Your task to perform on an android device: turn on airplane mode Image 0: 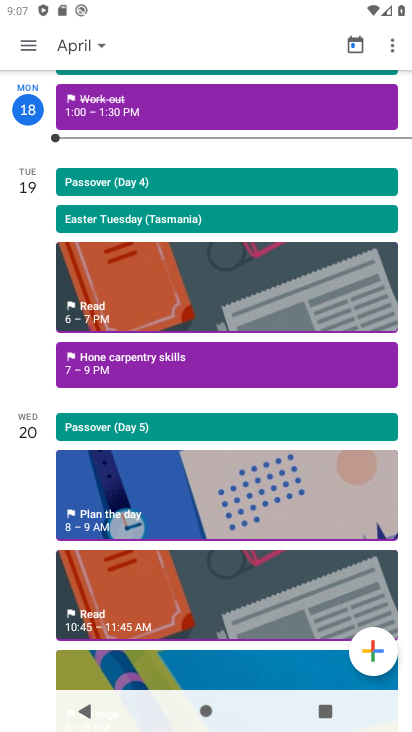
Step 0: press home button
Your task to perform on an android device: turn on airplane mode Image 1: 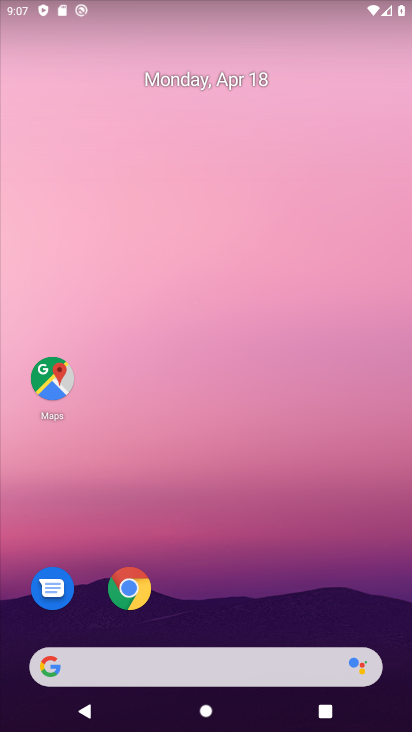
Step 1: drag from (263, 11) to (260, 595)
Your task to perform on an android device: turn on airplane mode Image 2: 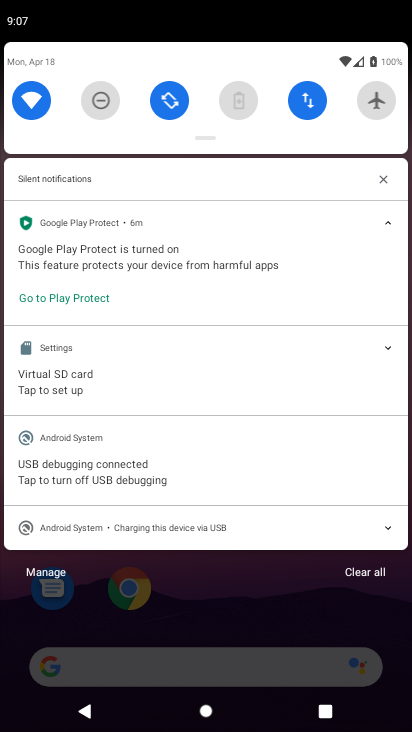
Step 2: drag from (275, 115) to (235, 618)
Your task to perform on an android device: turn on airplane mode Image 3: 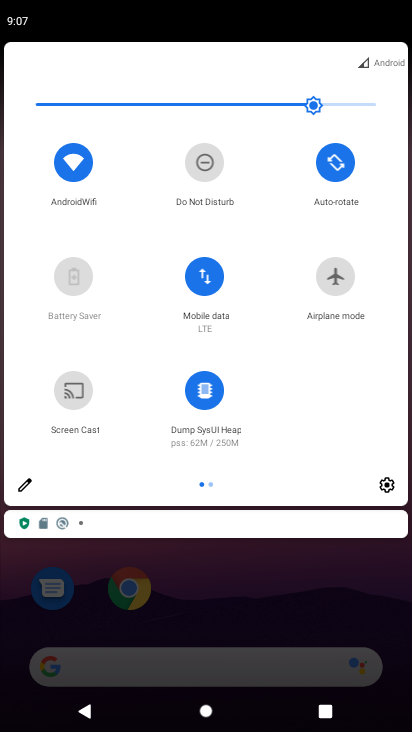
Step 3: click (327, 271)
Your task to perform on an android device: turn on airplane mode Image 4: 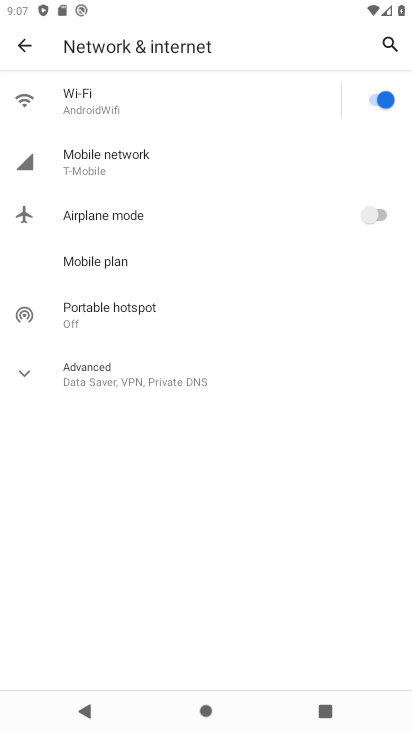
Step 4: click (383, 207)
Your task to perform on an android device: turn on airplane mode Image 5: 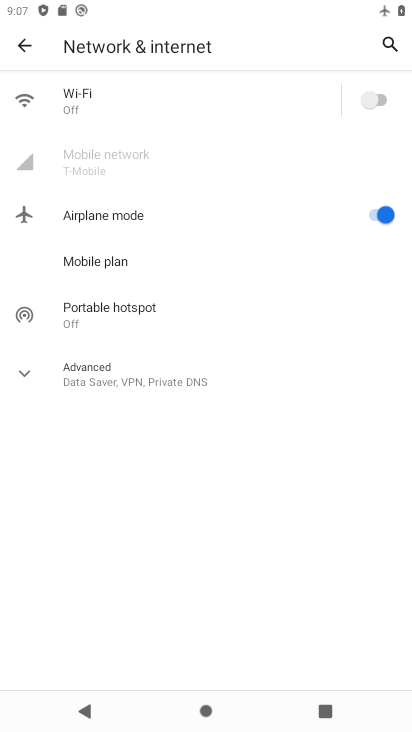
Step 5: task complete